Your task to perform on an android device: allow cookies in the chrome app Image 0: 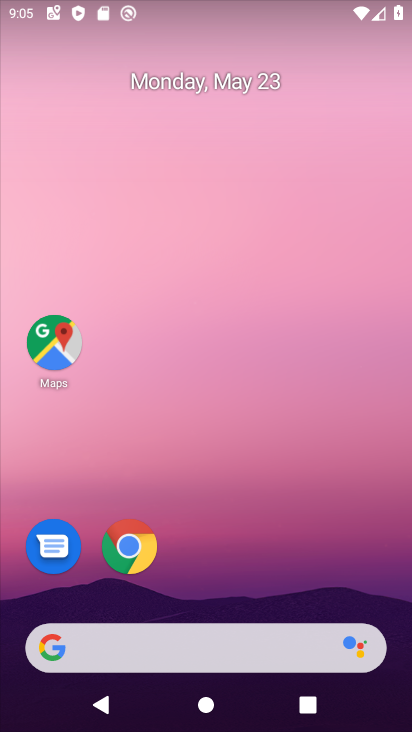
Step 0: drag from (292, 547) to (300, 143)
Your task to perform on an android device: allow cookies in the chrome app Image 1: 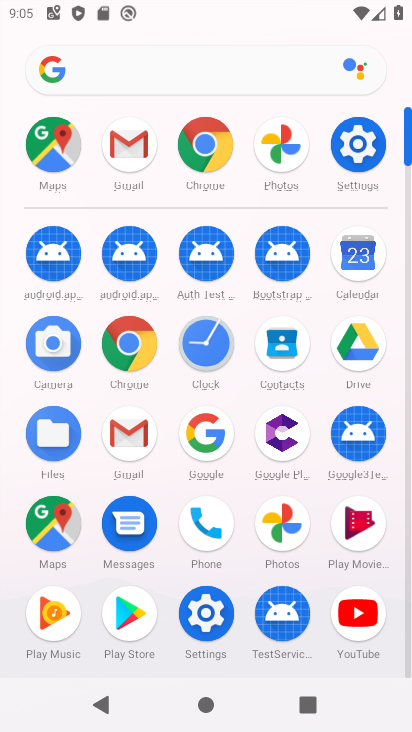
Step 1: click (132, 349)
Your task to perform on an android device: allow cookies in the chrome app Image 2: 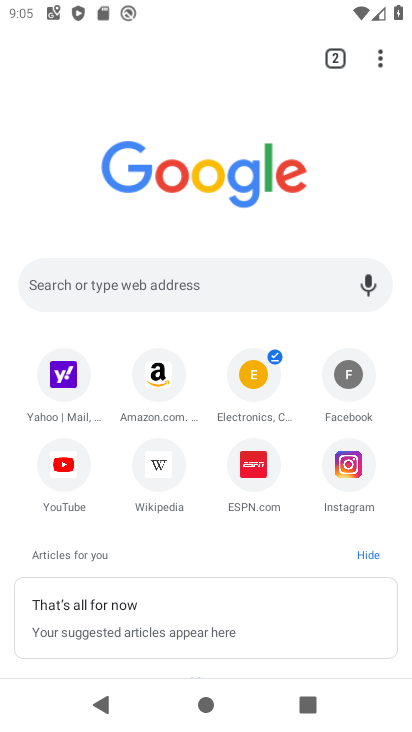
Step 2: drag from (381, 60) to (169, 500)
Your task to perform on an android device: allow cookies in the chrome app Image 3: 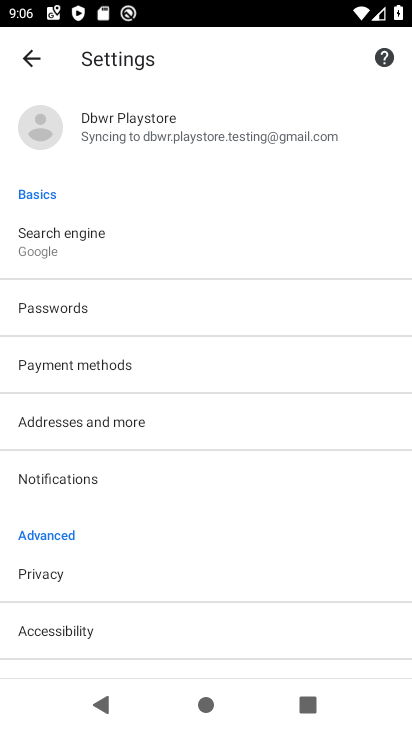
Step 3: drag from (60, 581) to (95, 336)
Your task to perform on an android device: allow cookies in the chrome app Image 4: 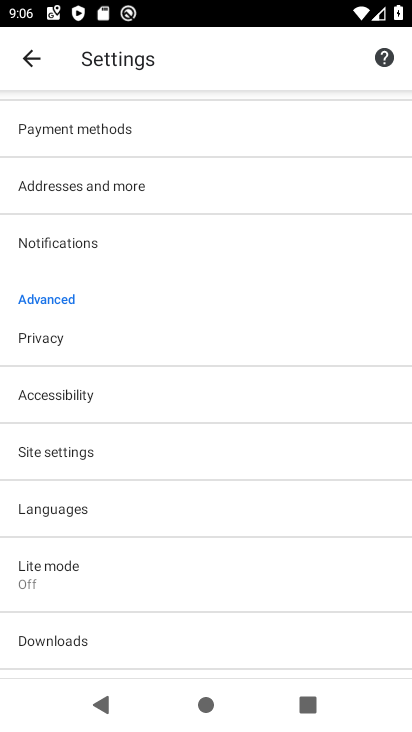
Step 4: click (63, 447)
Your task to perform on an android device: allow cookies in the chrome app Image 5: 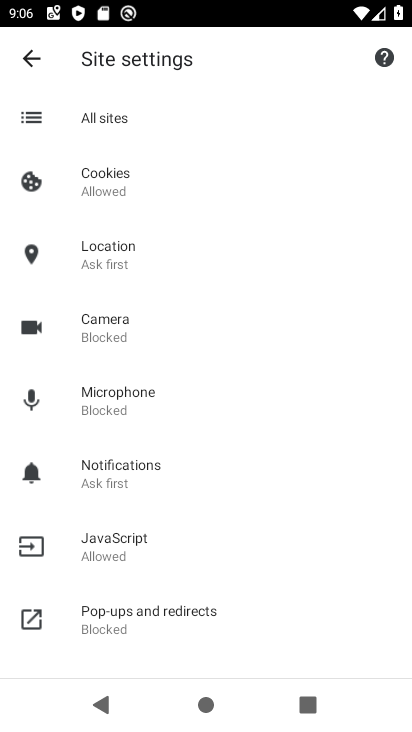
Step 5: click (187, 191)
Your task to perform on an android device: allow cookies in the chrome app Image 6: 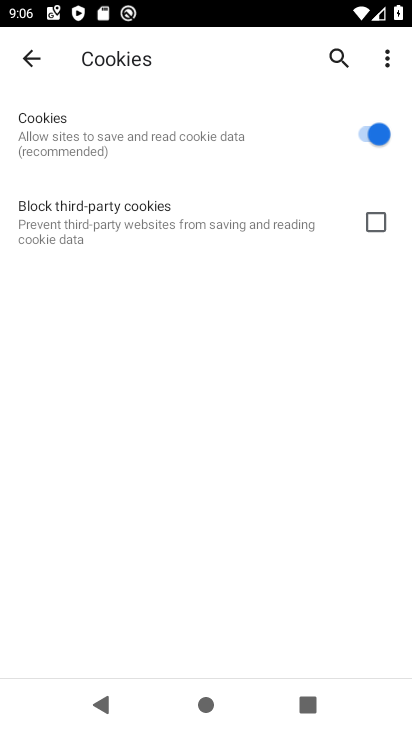
Step 6: task complete